Your task to perform on an android device: uninstall "Indeed Job Search" Image 0: 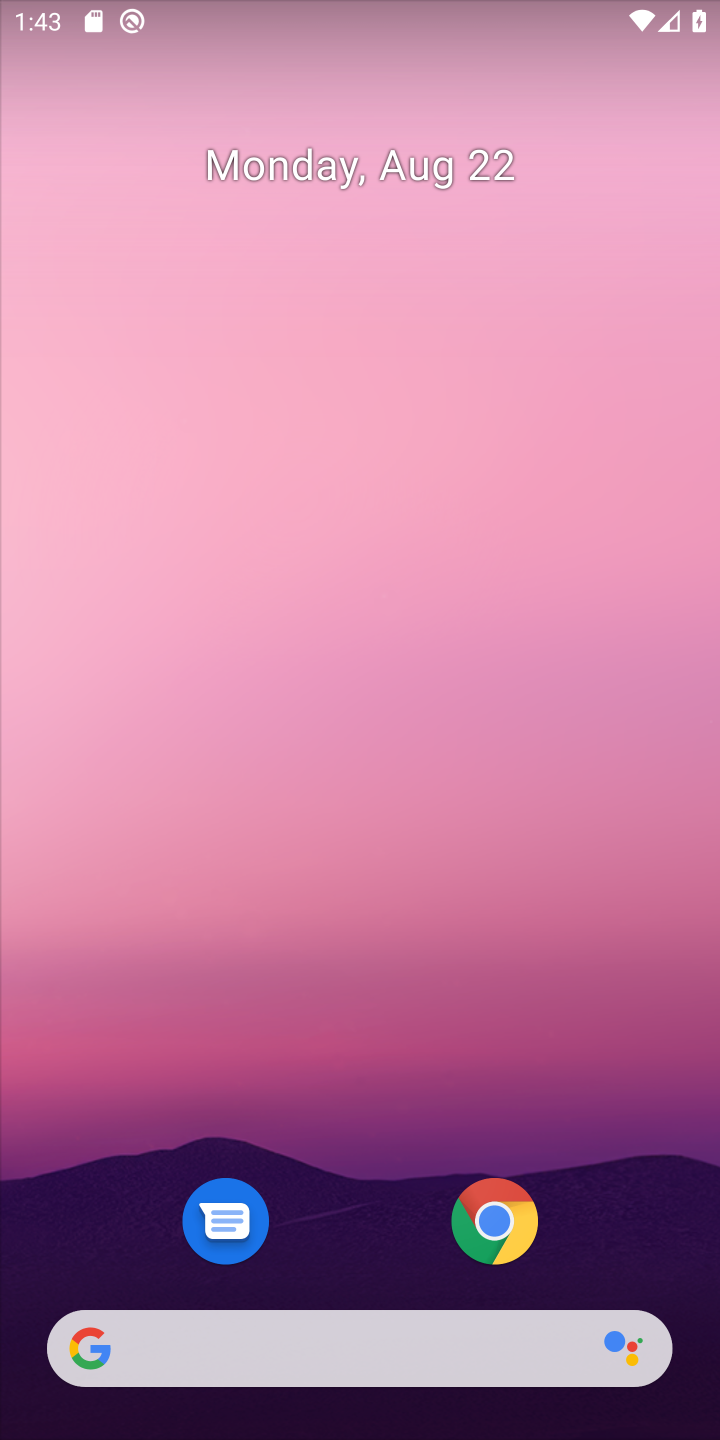
Step 0: press home button
Your task to perform on an android device: uninstall "Indeed Job Search" Image 1: 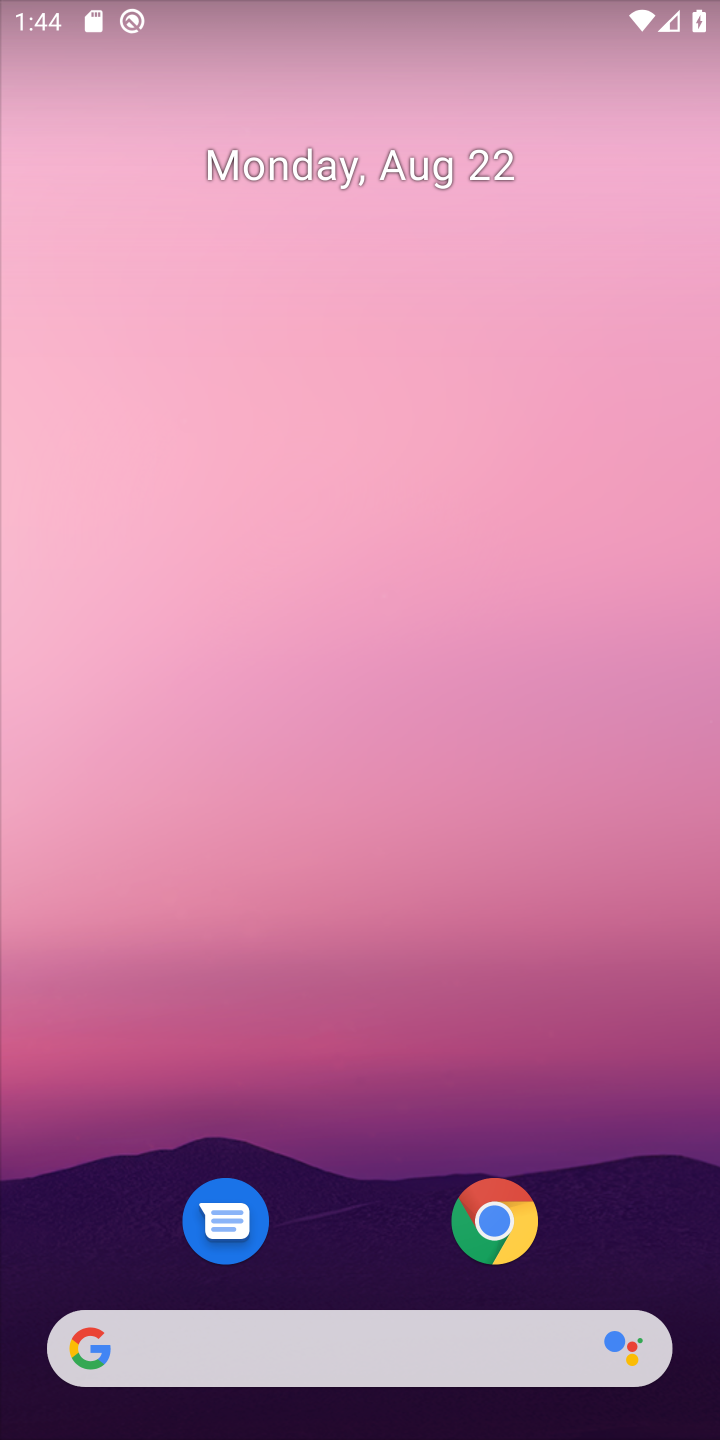
Step 1: drag from (365, 1238) to (331, 126)
Your task to perform on an android device: uninstall "Indeed Job Search" Image 2: 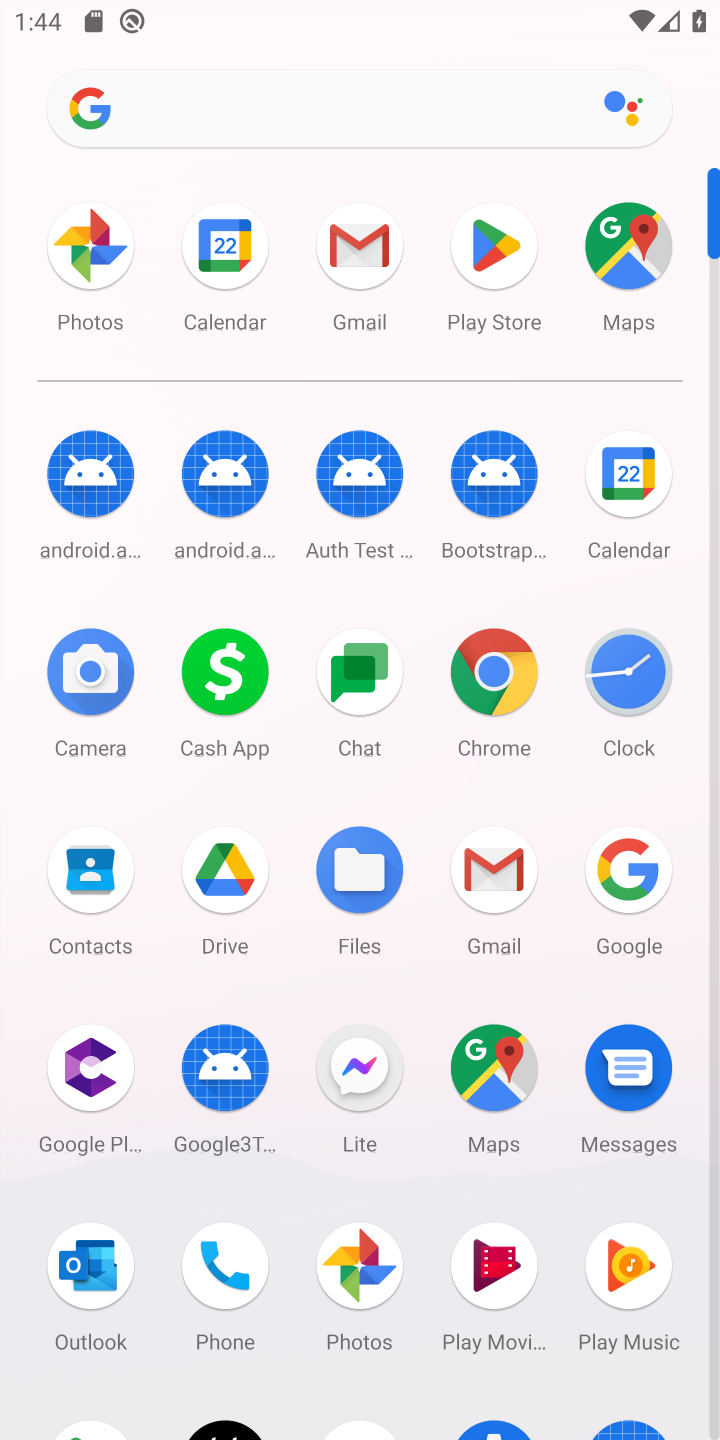
Step 2: click (487, 237)
Your task to perform on an android device: uninstall "Indeed Job Search" Image 3: 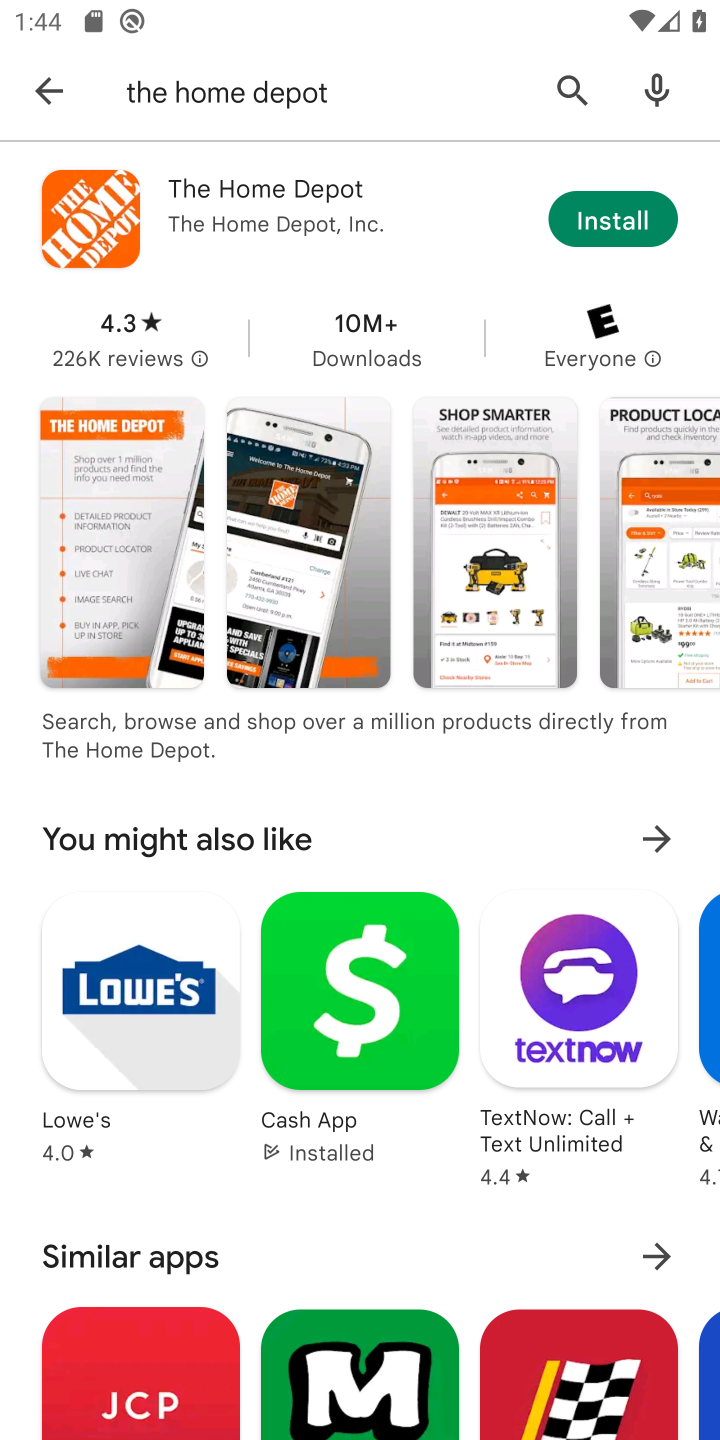
Step 3: click (572, 93)
Your task to perform on an android device: uninstall "Indeed Job Search" Image 4: 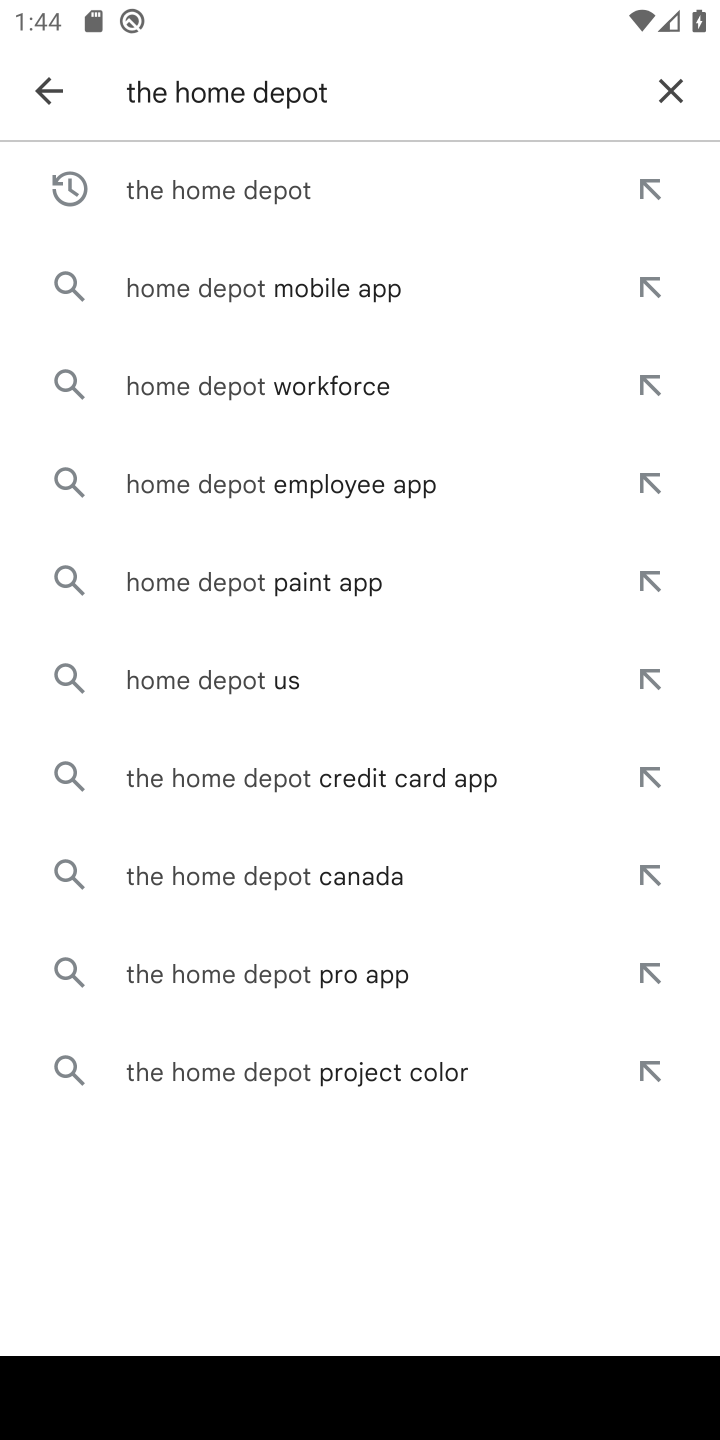
Step 4: click (668, 94)
Your task to perform on an android device: uninstall "Indeed Job Search" Image 5: 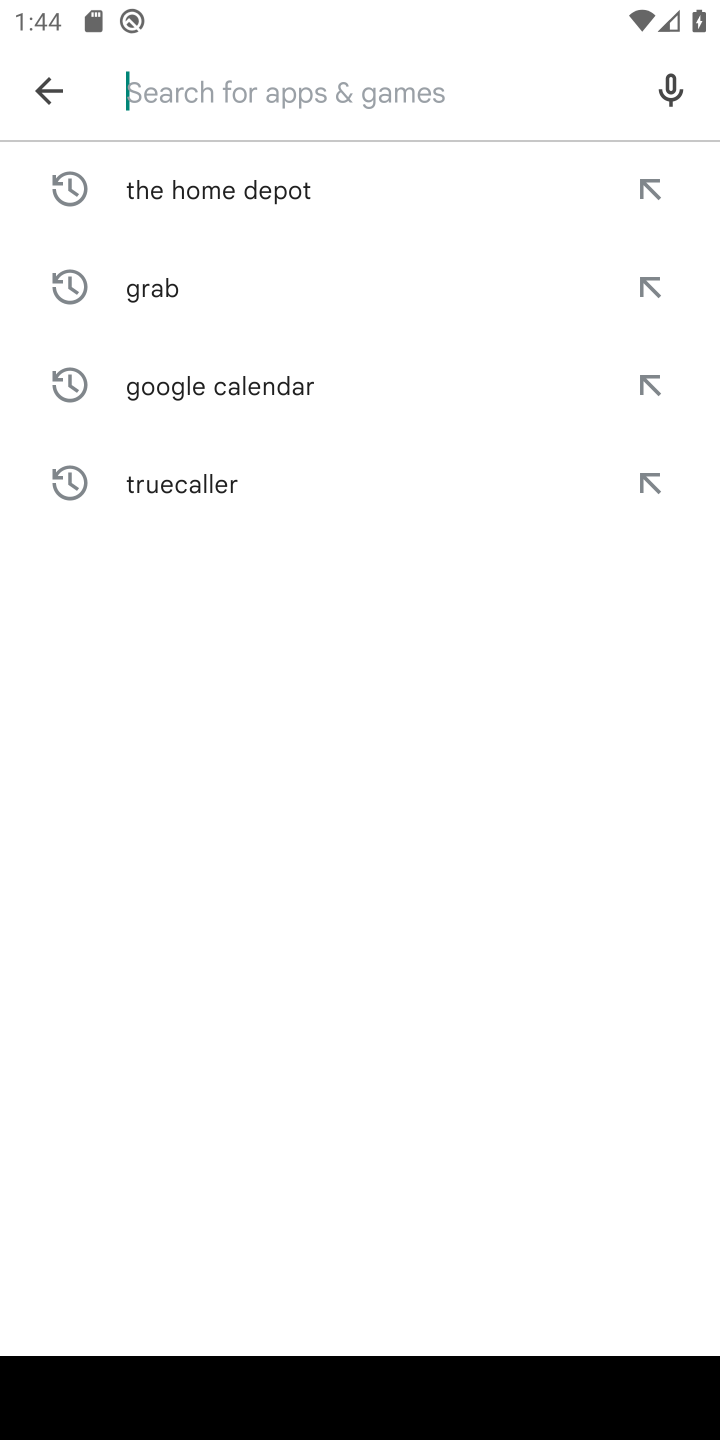
Step 5: type "Indeed Job Search"
Your task to perform on an android device: uninstall "Indeed Job Search" Image 6: 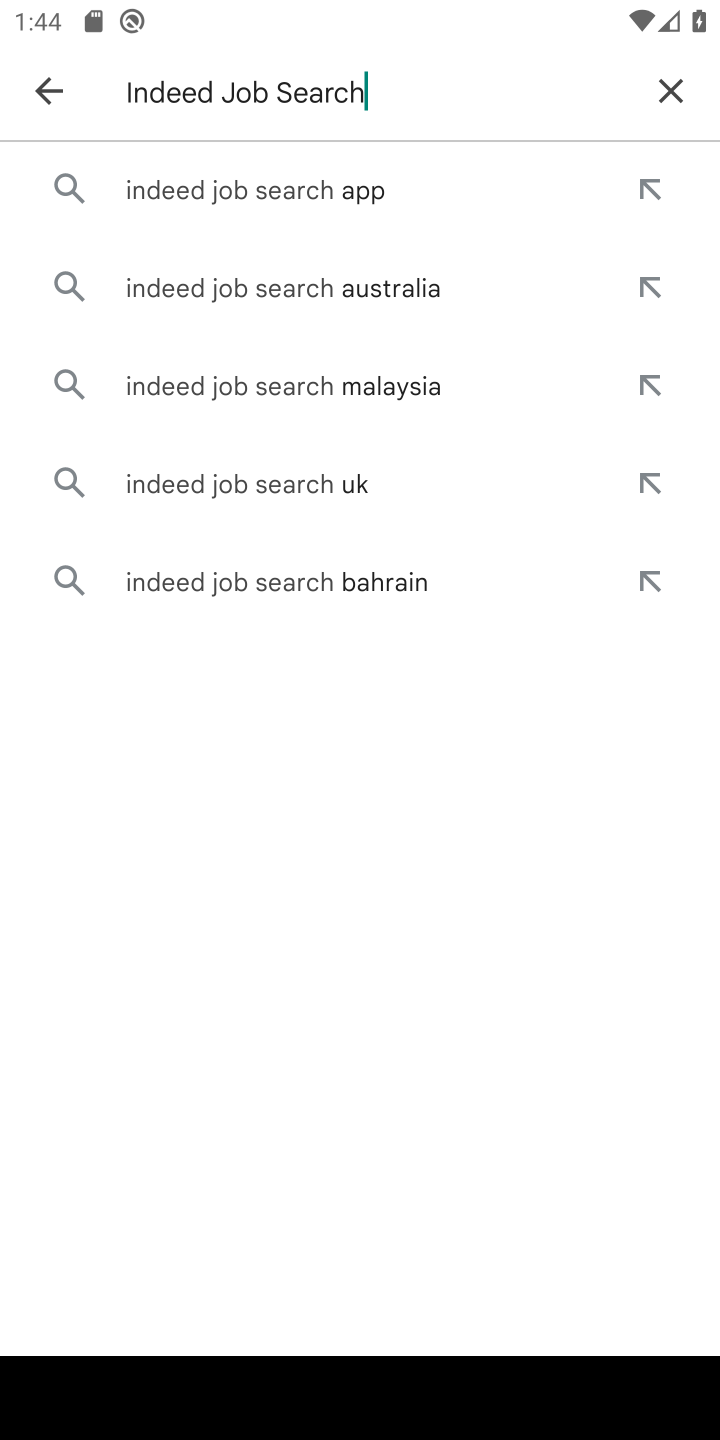
Step 6: click (334, 186)
Your task to perform on an android device: uninstall "Indeed Job Search" Image 7: 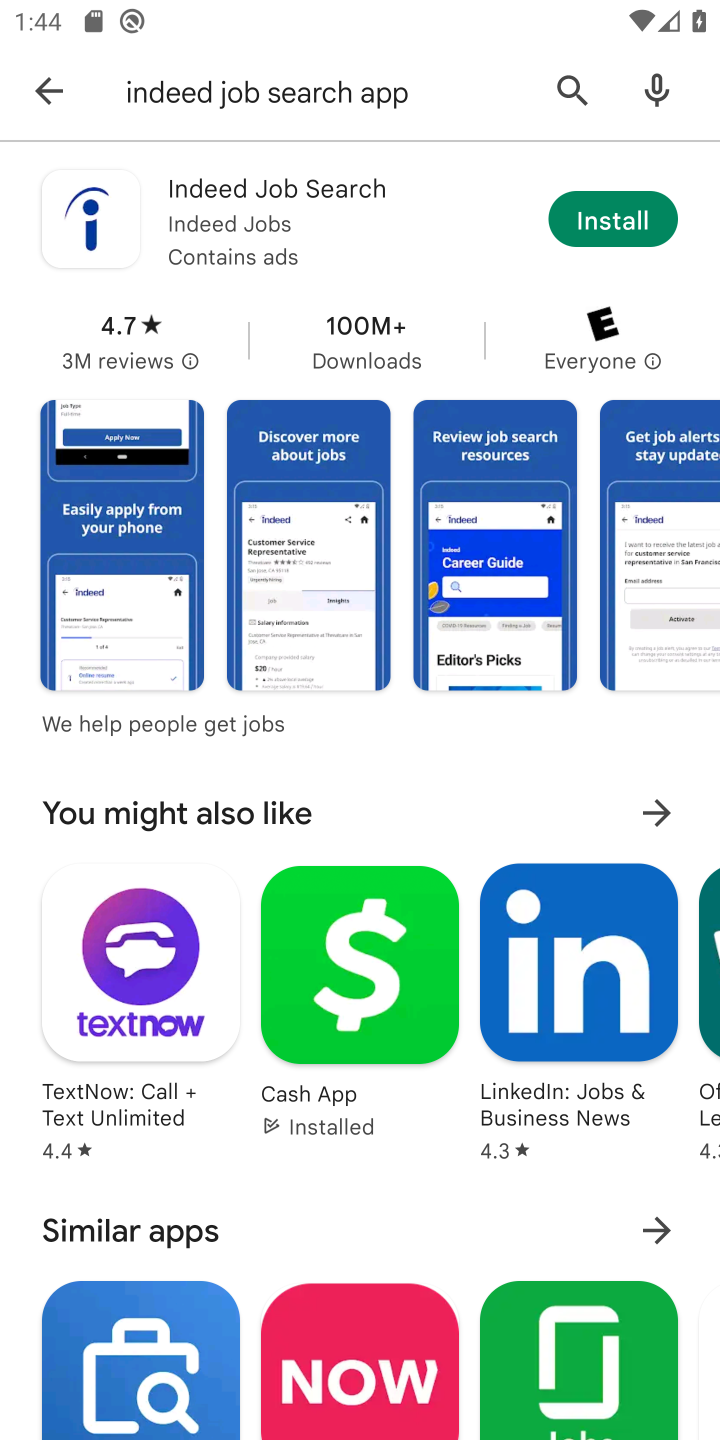
Step 7: task complete